Your task to perform on an android device: change the clock style Image 0: 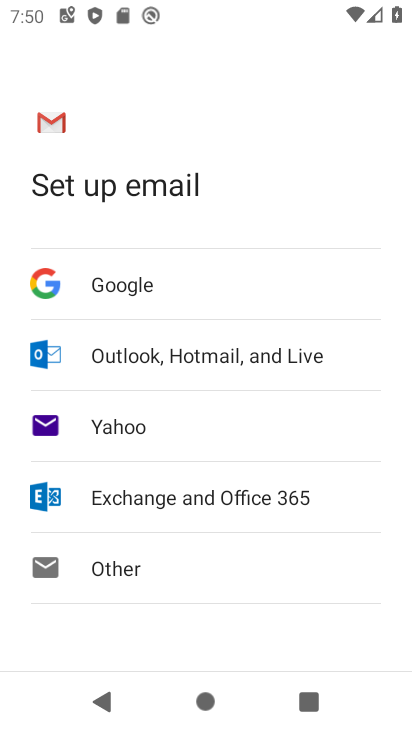
Step 0: press home button
Your task to perform on an android device: change the clock style Image 1: 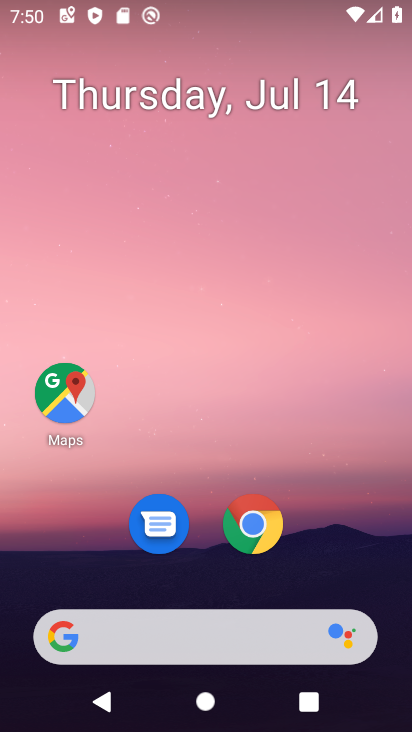
Step 1: drag from (342, 538) to (299, 38)
Your task to perform on an android device: change the clock style Image 2: 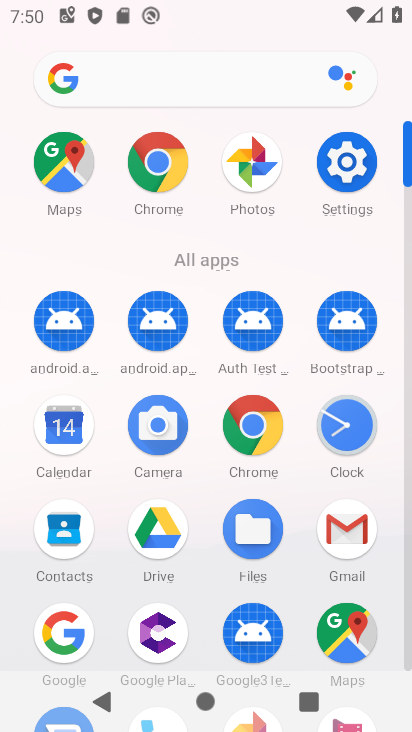
Step 2: click (348, 422)
Your task to perform on an android device: change the clock style Image 3: 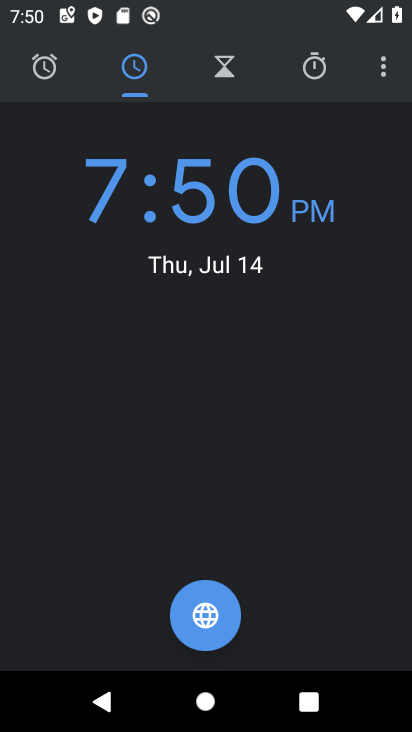
Step 3: click (386, 69)
Your task to perform on an android device: change the clock style Image 4: 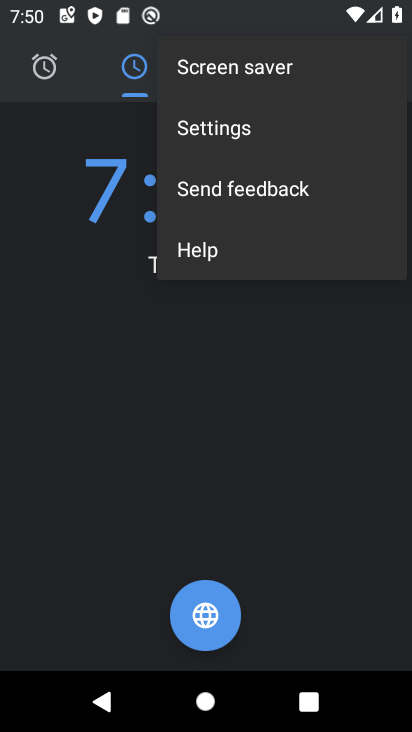
Step 4: click (247, 133)
Your task to perform on an android device: change the clock style Image 5: 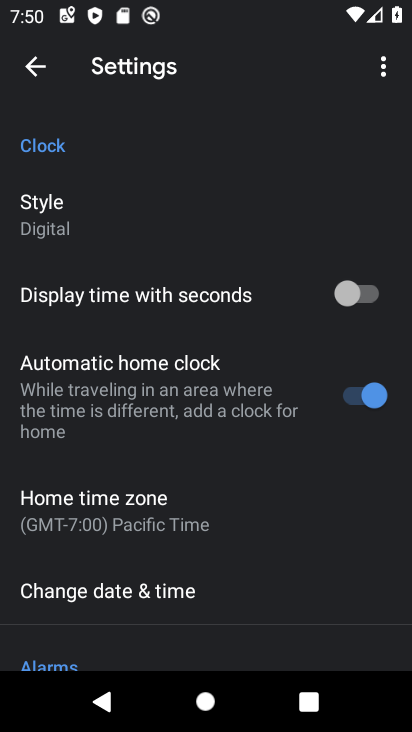
Step 5: click (47, 209)
Your task to perform on an android device: change the clock style Image 6: 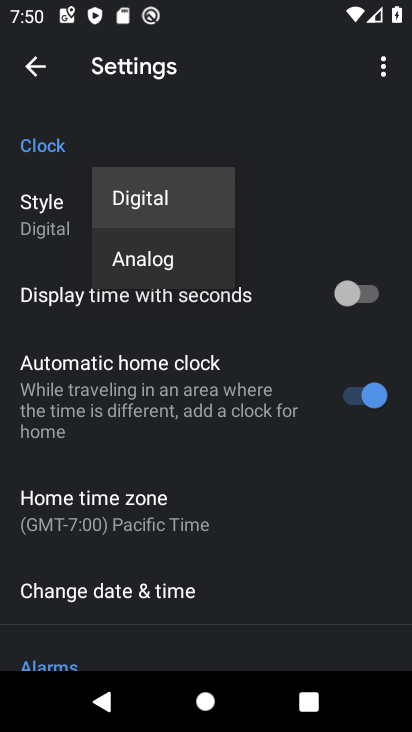
Step 6: click (122, 260)
Your task to perform on an android device: change the clock style Image 7: 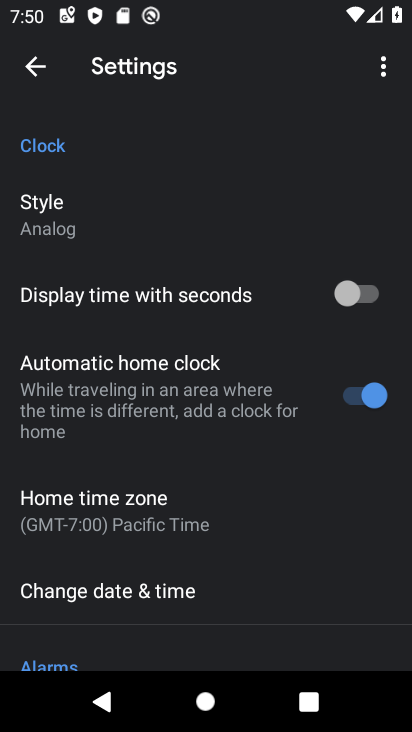
Step 7: click (38, 69)
Your task to perform on an android device: change the clock style Image 8: 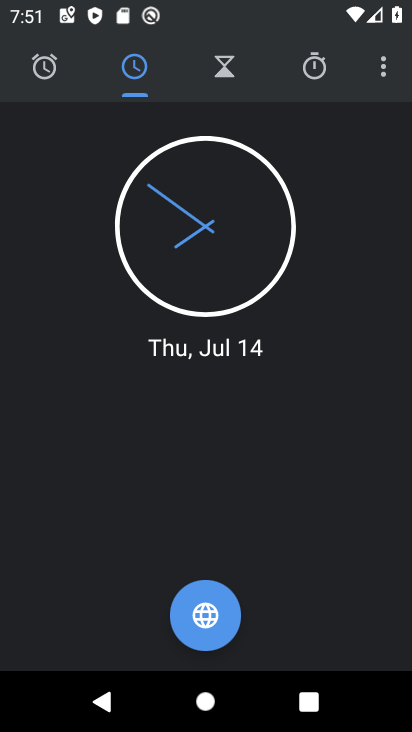
Step 8: task complete